Your task to perform on an android device: When is my next meeting? Image 0: 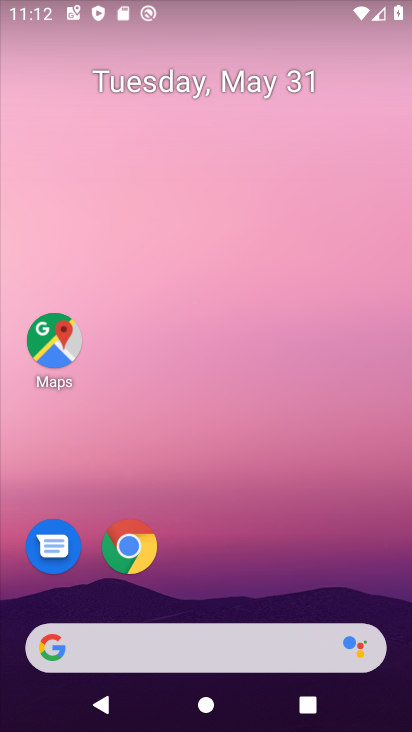
Step 0: drag from (248, 604) to (211, 143)
Your task to perform on an android device: When is my next meeting? Image 1: 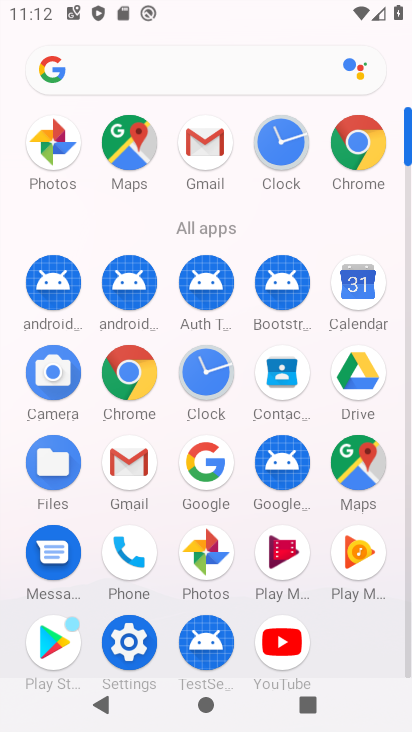
Step 1: click (352, 299)
Your task to perform on an android device: When is my next meeting? Image 2: 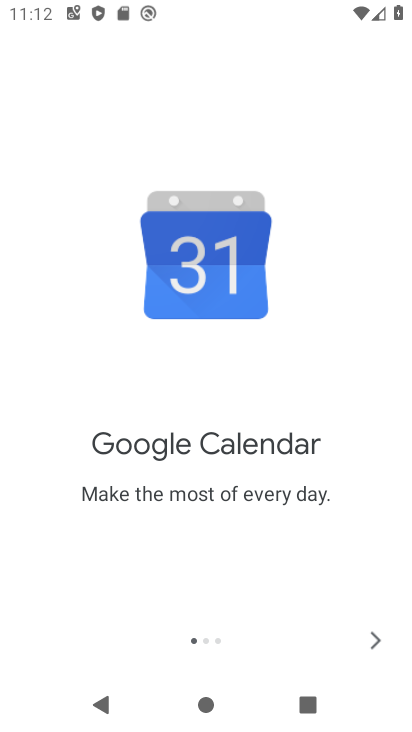
Step 2: click (380, 652)
Your task to perform on an android device: When is my next meeting? Image 3: 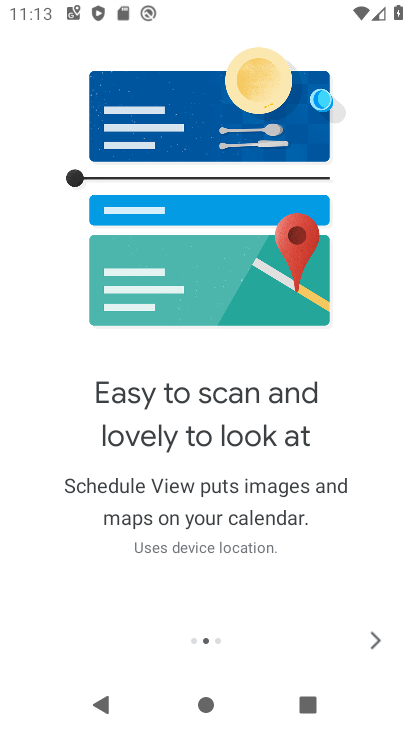
Step 3: click (380, 652)
Your task to perform on an android device: When is my next meeting? Image 4: 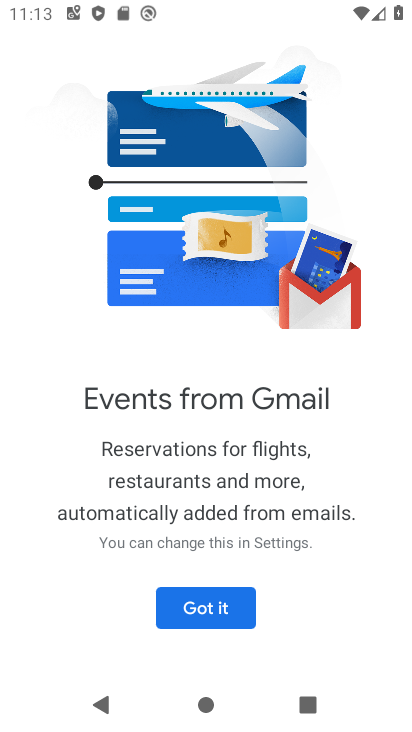
Step 4: click (242, 625)
Your task to perform on an android device: When is my next meeting? Image 5: 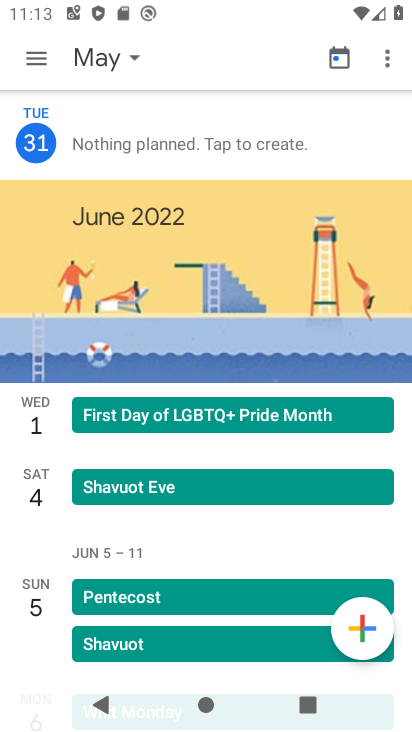
Step 5: click (47, 58)
Your task to perform on an android device: When is my next meeting? Image 6: 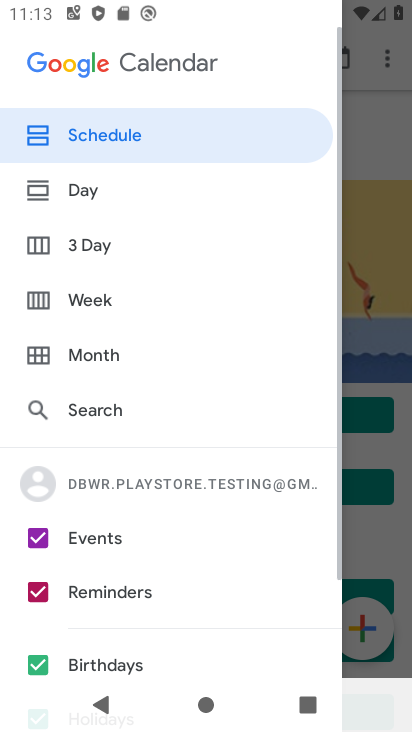
Step 6: click (100, 133)
Your task to perform on an android device: When is my next meeting? Image 7: 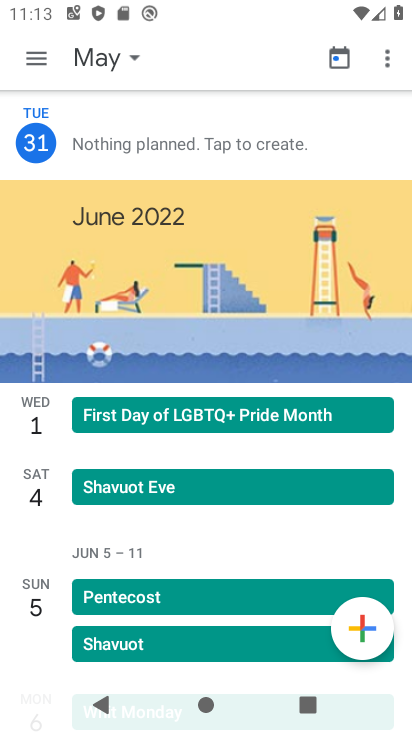
Step 7: task complete